Your task to perform on an android device: Go to network settings Image 0: 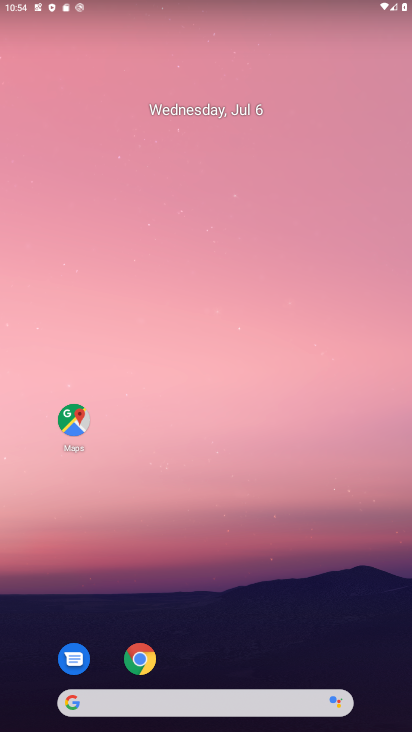
Step 0: drag from (271, 570) to (221, 202)
Your task to perform on an android device: Go to network settings Image 1: 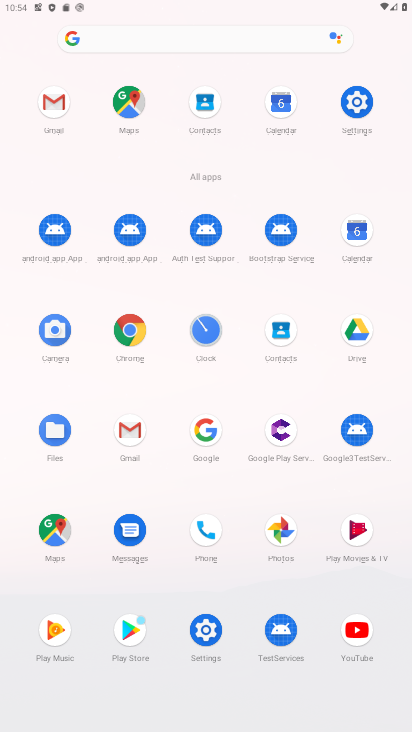
Step 1: click (361, 104)
Your task to perform on an android device: Go to network settings Image 2: 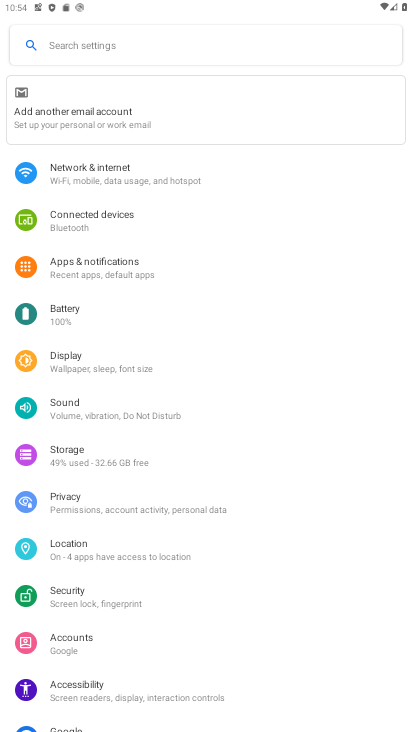
Step 2: click (95, 166)
Your task to perform on an android device: Go to network settings Image 3: 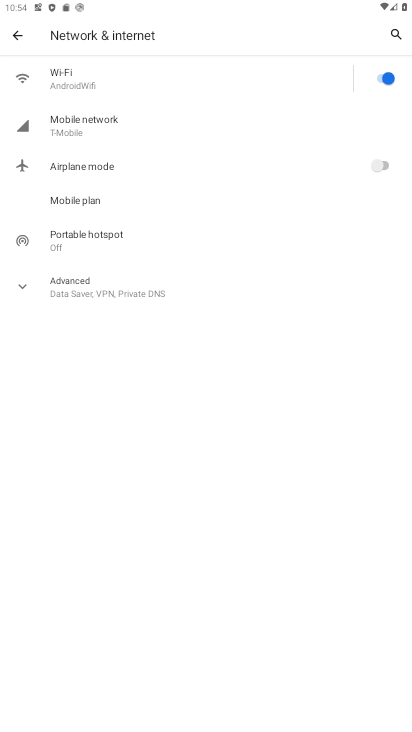
Step 3: click (117, 118)
Your task to perform on an android device: Go to network settings Image 4: 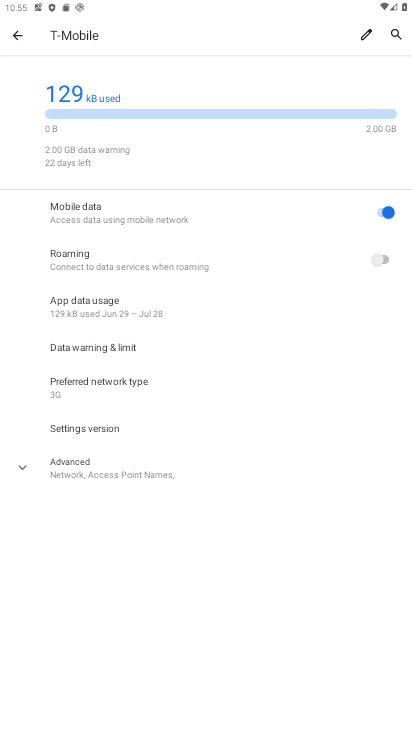
Step 4: task complete